Your task to perform on an android device: Show me recent news Image 0: 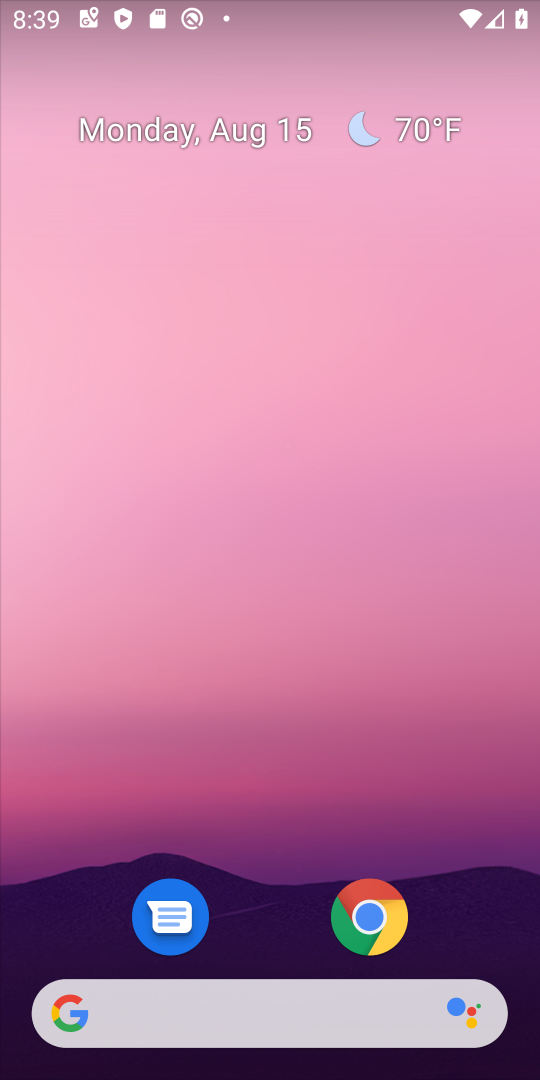
Step 0: click (298, 1010)
Your task to perform on an android device: Show me recent news Image 1: 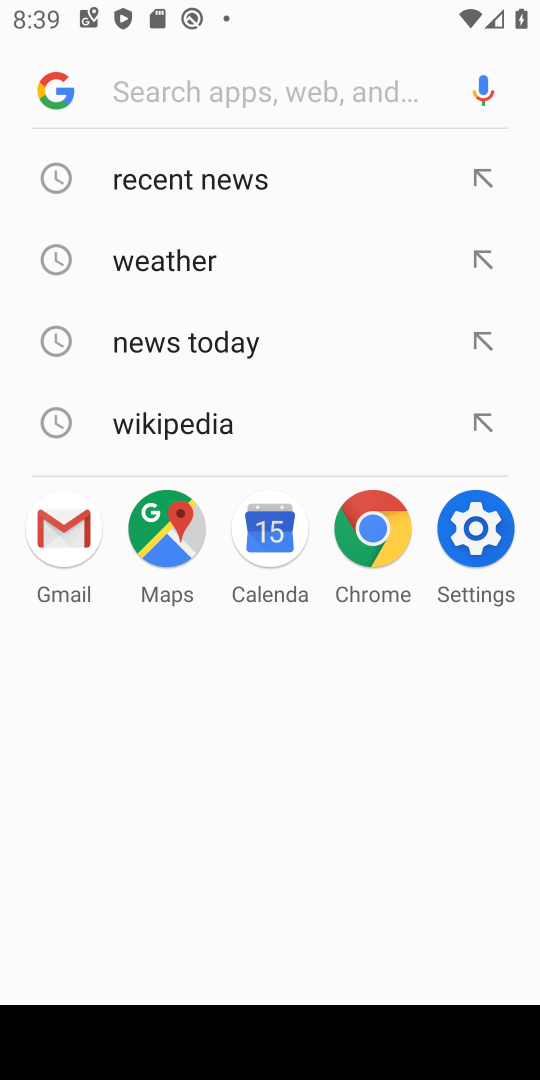
Step 1: click (219, 175)
Your task to perform on an android device: Show me recent news Image 2: 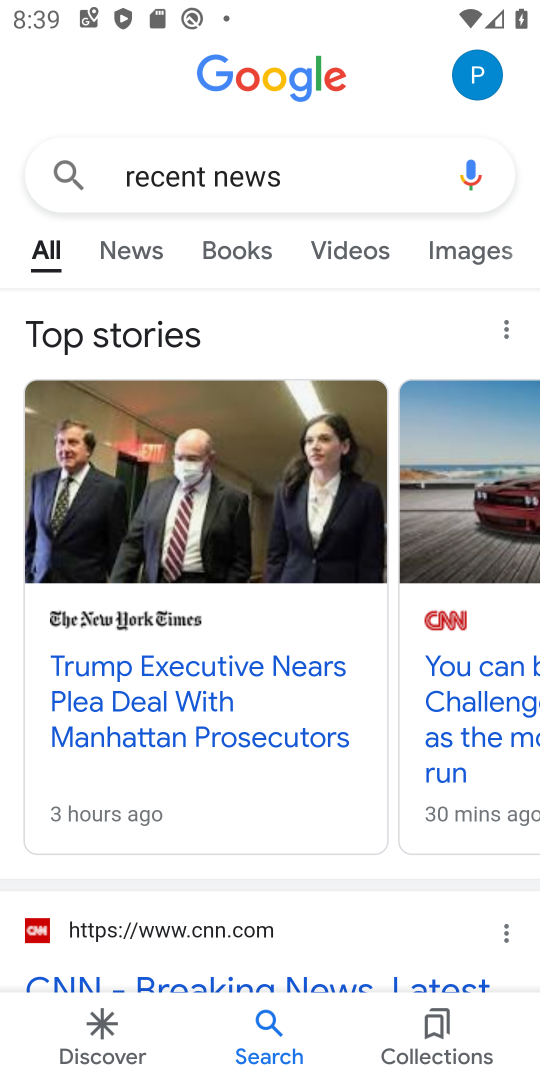
Step 2: click (148, 246)
Your task to perform on an android device: Show me recent news Image 3: 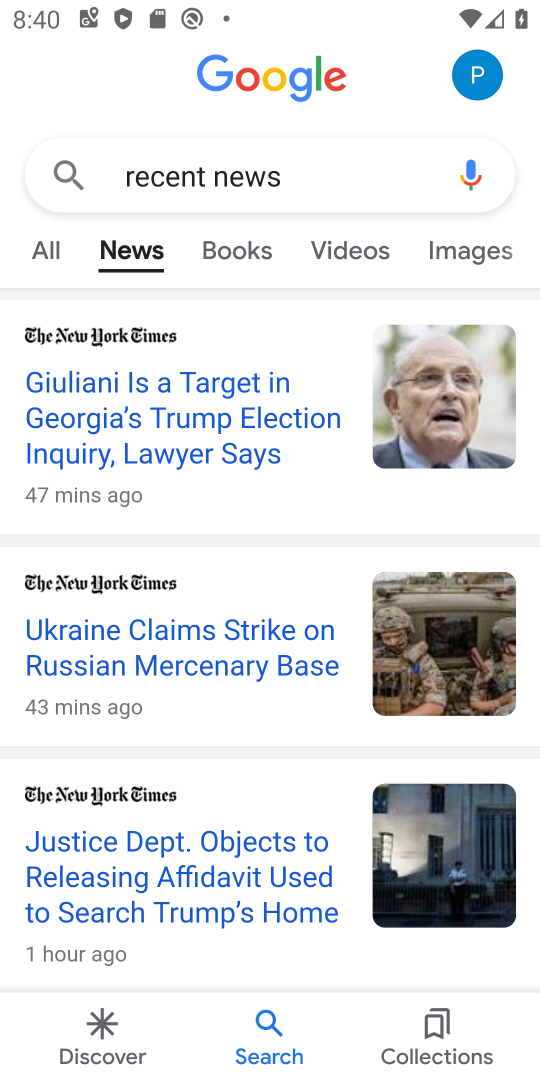
Step 3: task complete